Your task to perform on an android device: snooze an email in the gmail app Image 0: 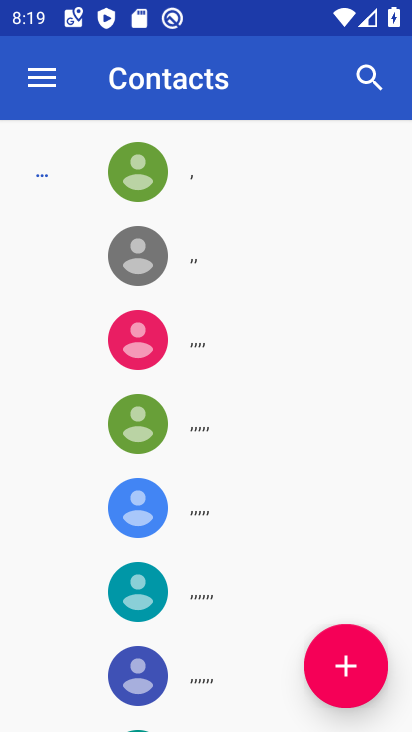
Step 0: press home button
Your task to perform on an android device: snooze an email in the gmail app Image 1: 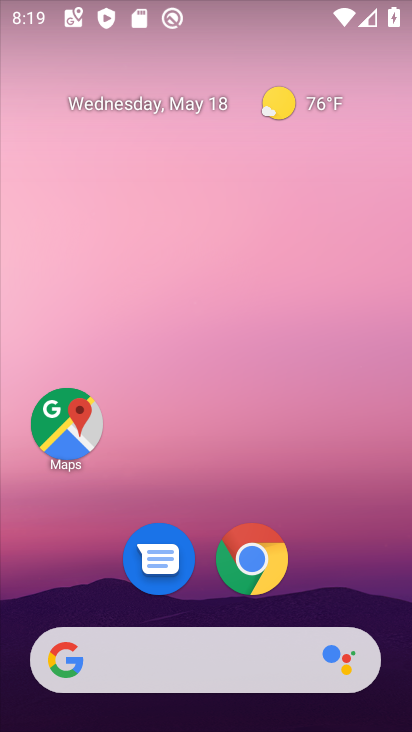
Step 1: drag from (200, 602) to (205, 118)
Your task to perform on an android device: snooze an email in the gmail app Image 2: 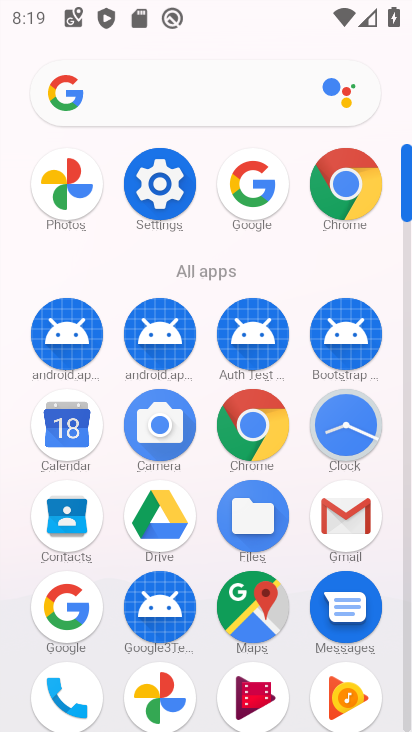
Step 2: click (340, 515)
Your task to perform on an android device: snooze an email in the gmail app Image 3: 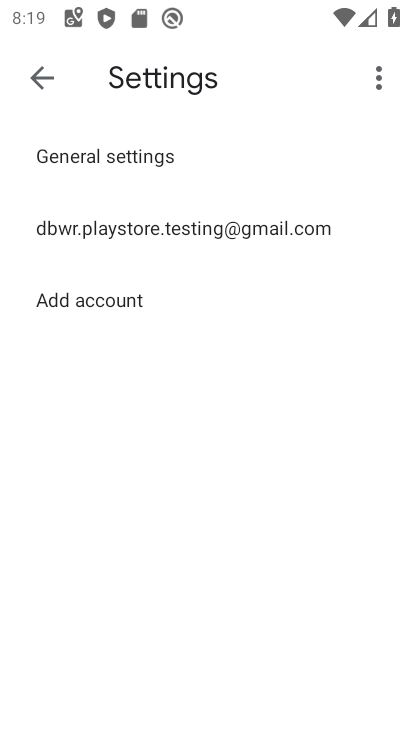
Step 3: press back button
Your task to perform on an android device: snooze an email in the gmail app Image 4: 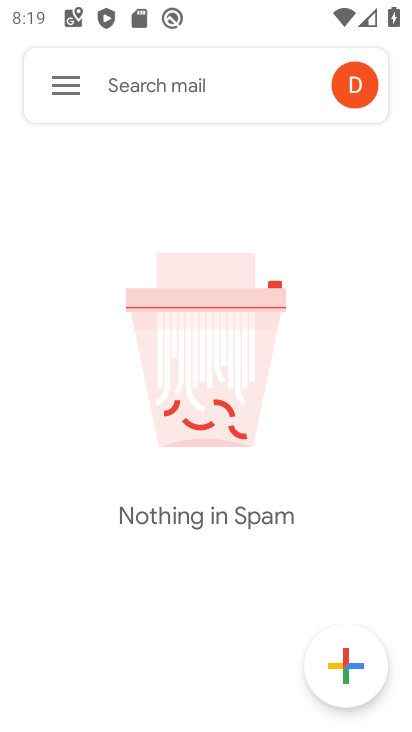
Step 4: click (74, 91)
Your task to perform on an android device: snooze an email in the gmail app Image 5: 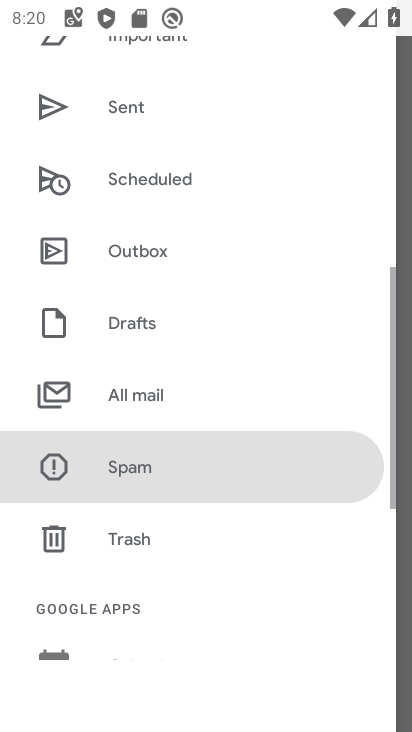
Step 5: click (133, 388)
Your task to perform on an android device: snooze an email in the gmail app Image 6: 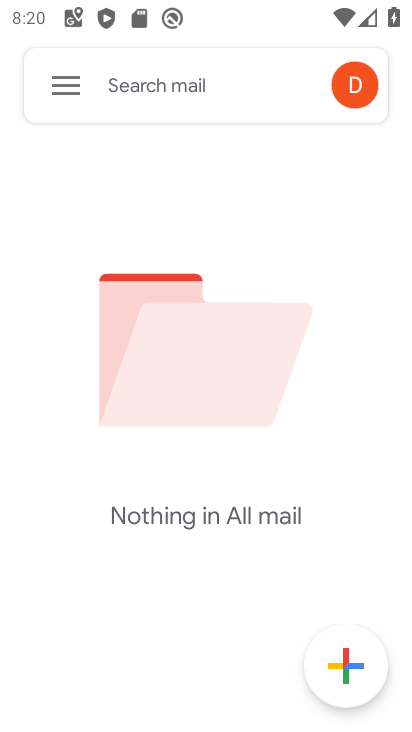
Step 6: task complete